Your task to perform on an android device: Open location settings Image 0: 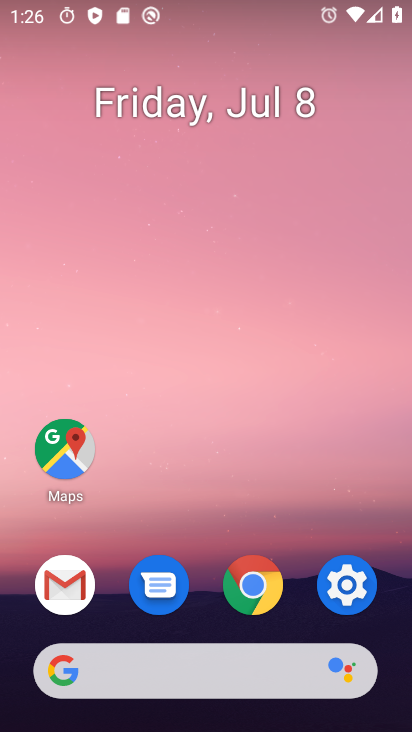
Step 0: press home button
Your task to perform on an android device: Open location settings Image 1: 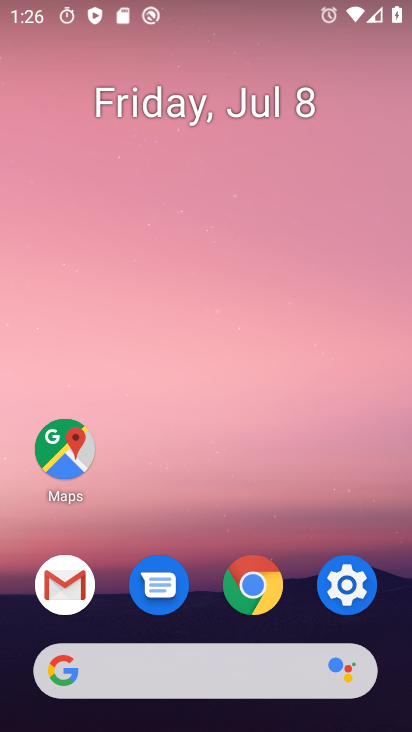
Step 1: click (351, 597)
Your task to perform on an android device: Open location settings Image 2: 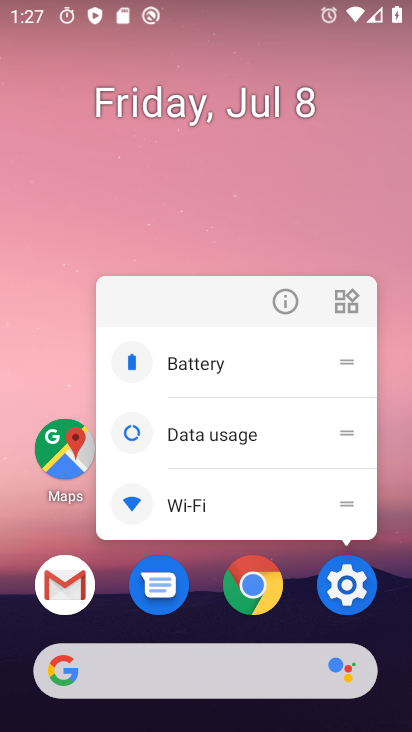
Step 2: click (318, 582)
Your task to perform on an android device: Open location settings Image 3: 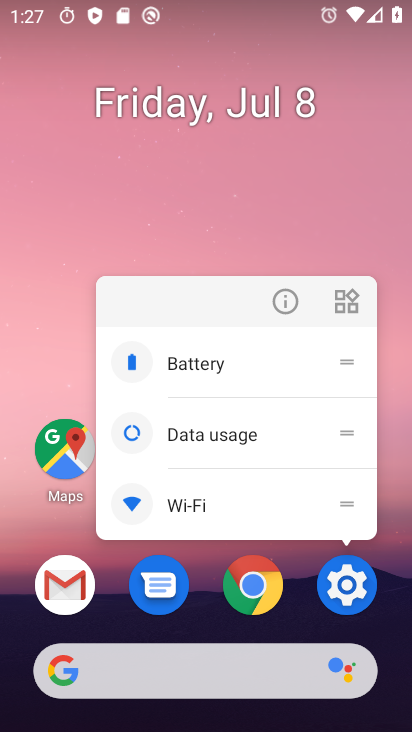
Step 3: click (339, 586)
Your task to perform on an android device: Open location settings Image 4: 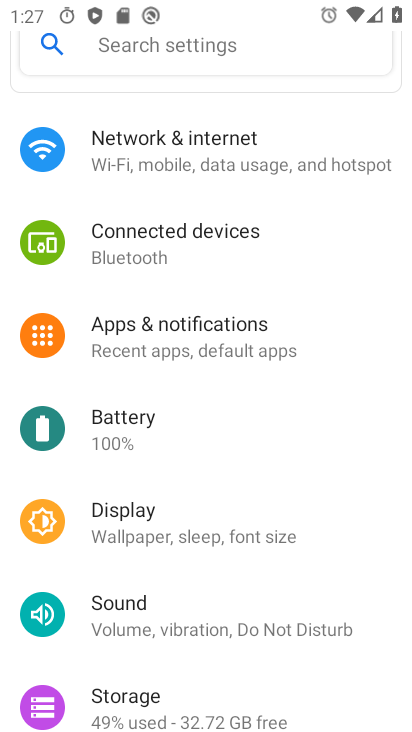
Step 4: click (172, 52)
Your task to perform on an android device: Open location settings Image 5: 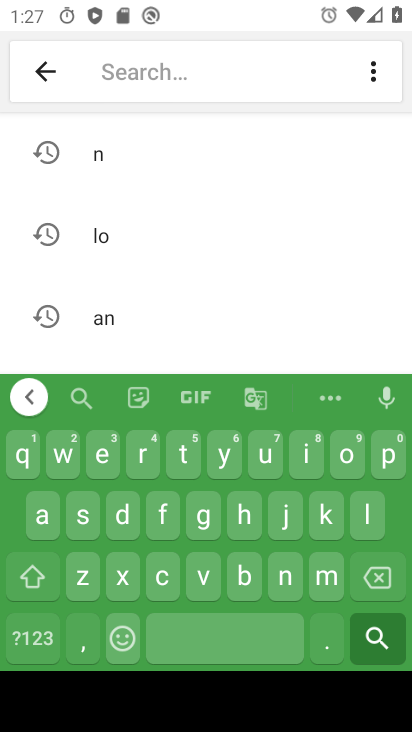
Step 5: click (112, 240)
Your task to perform on an android device: Open location settings Image 6: 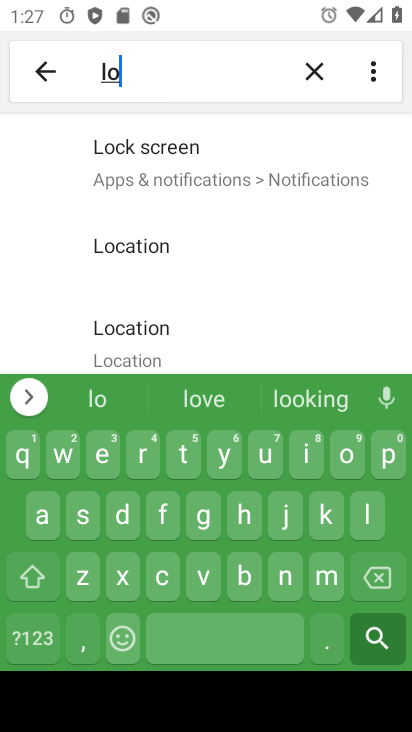
Step 6: click (143, 336)
Your task to perform on an android device: Open location settings Image 7: 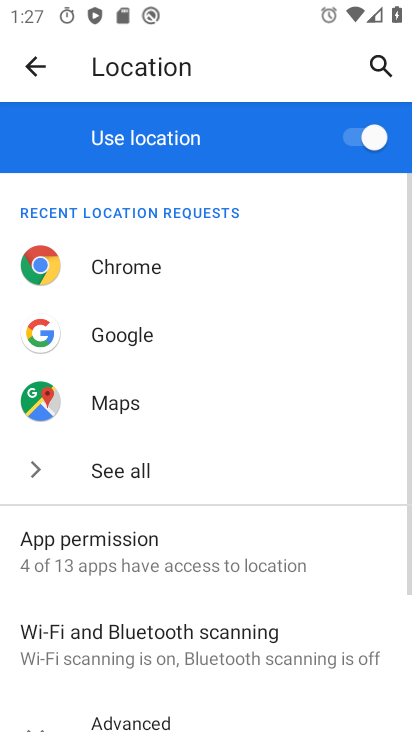
Step 7: task complete